Your task to perform on an android device: turn pop-ups on in chrome Image 0: 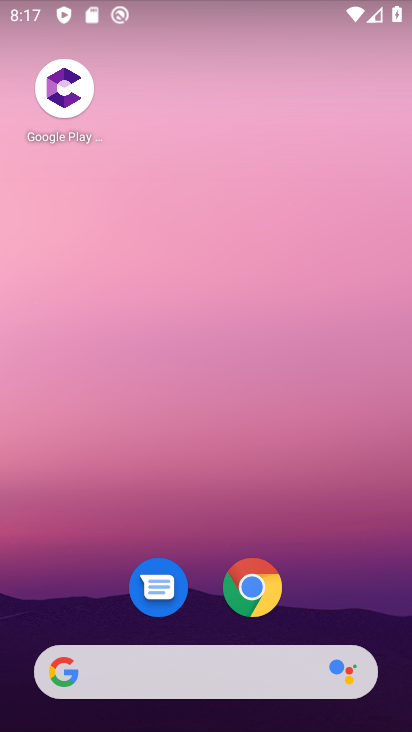
Step 0: click (260, 586)
Your task to perform on an android device: turn pop-ups on in chrome Image 1: 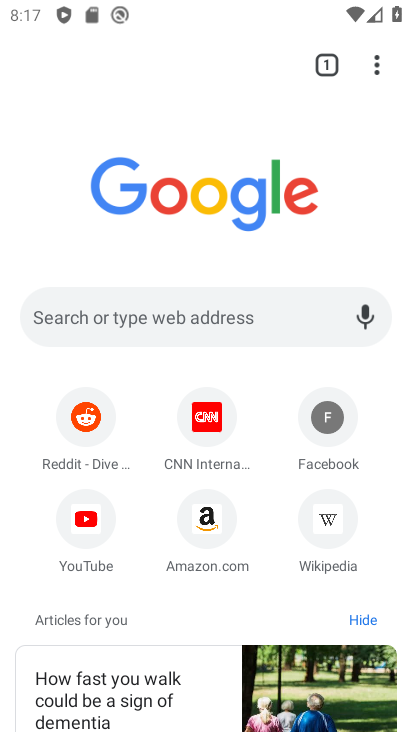
Step 1: click (386, 64)
Your task to perform on an android device: turn pop-ups on in chrome Image 2: 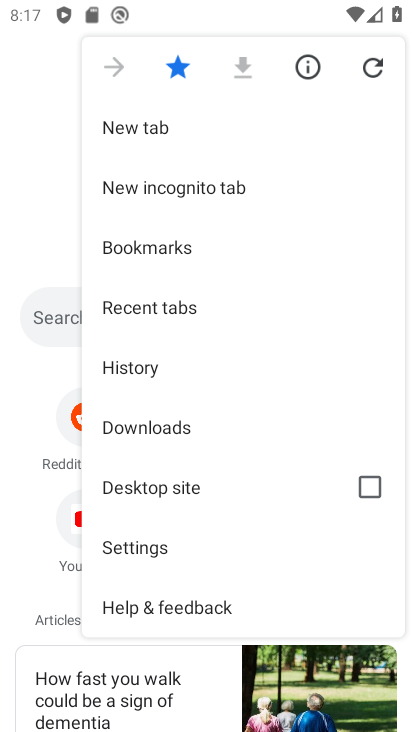
Step 2: click (160, 537)
Your task to perform on an android device: turn pop-ups on in chrome Image 3: 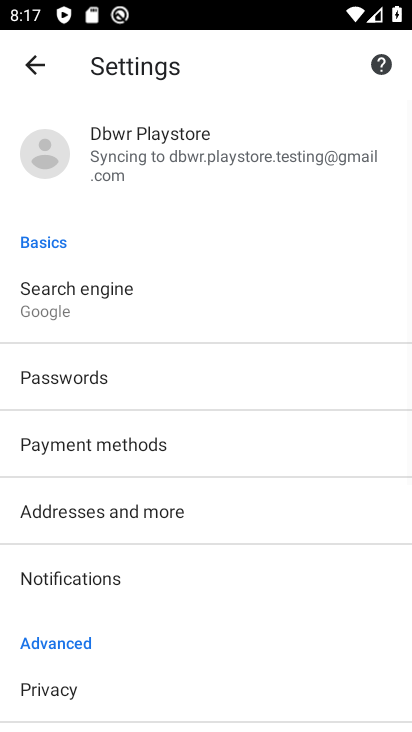
Step 3: drag from (95, 641) to (174, 172)
Your task to perform on an android device: turn pop-ups on in chrome Image 4: 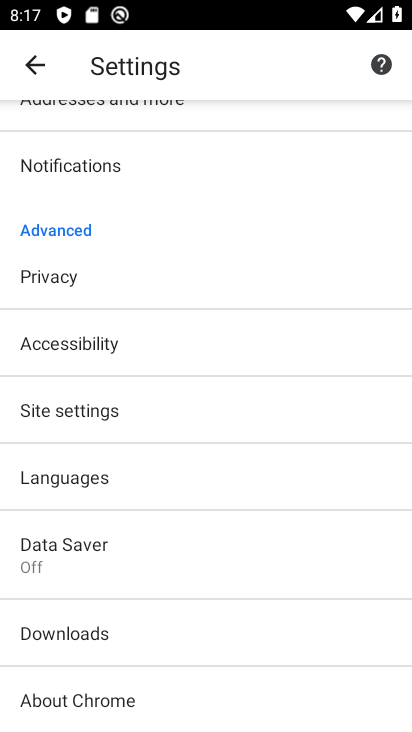
Step 4: drag from (78, 644) to (161, 276)
Your task to perform on an android device: turn pop-ups on in chrome Image 5: 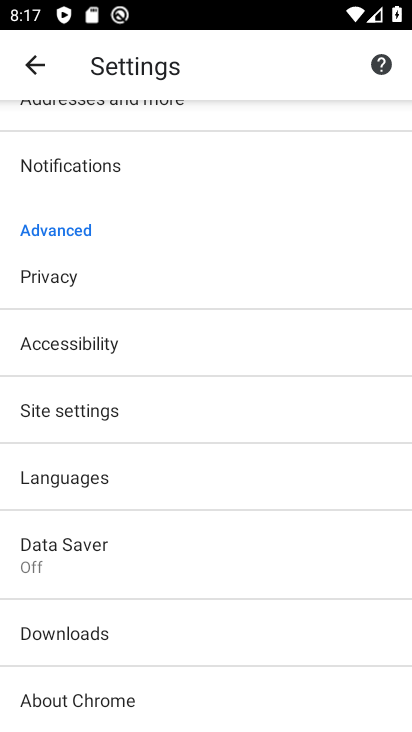
Step 5: click (110, 418)
Your task to perform on an android device: turn pop-ups on in chrome Image 6: 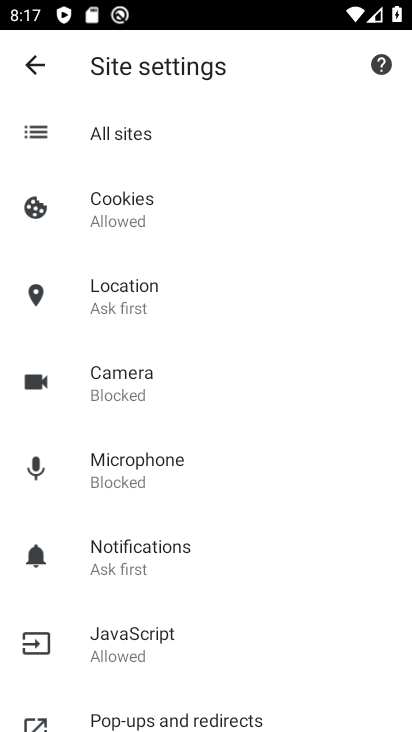
Step 6: click (180, 717)
Your task to perform on an android device: turn pop-ups on in chrome Image 7: 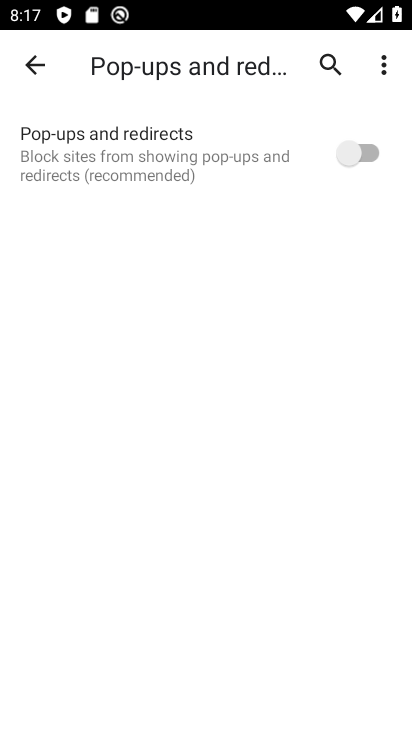
Step 7: click (369, 154)
Your task to perform on an android device: turn pop-ups on in chrome Image 8: 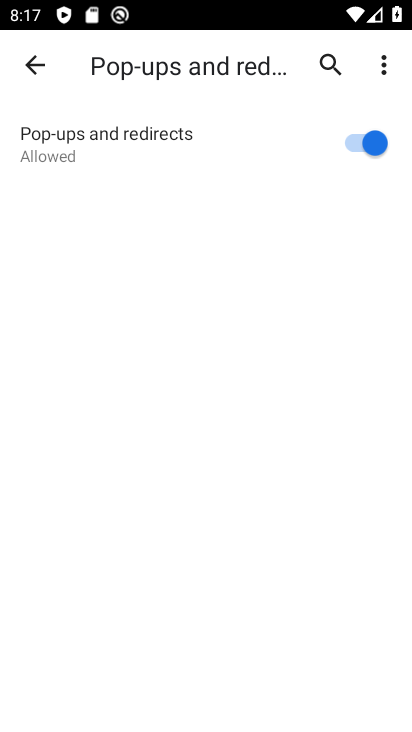
Step 8: task complete